Your task to perform on an android device: check storage Image 0: 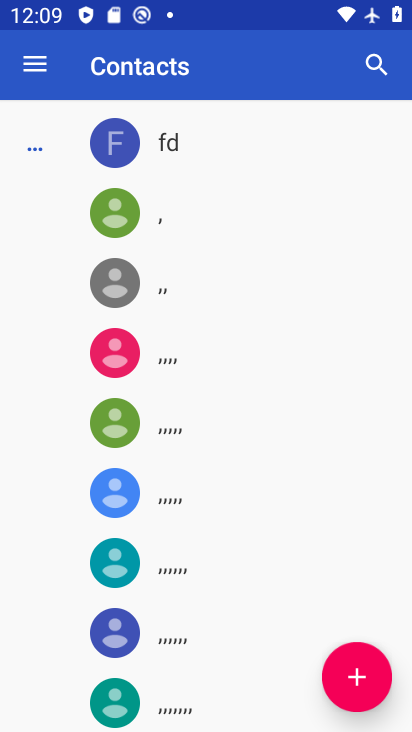
Step 0: press home button
Your task to perform on an android device: check storage Image 1: 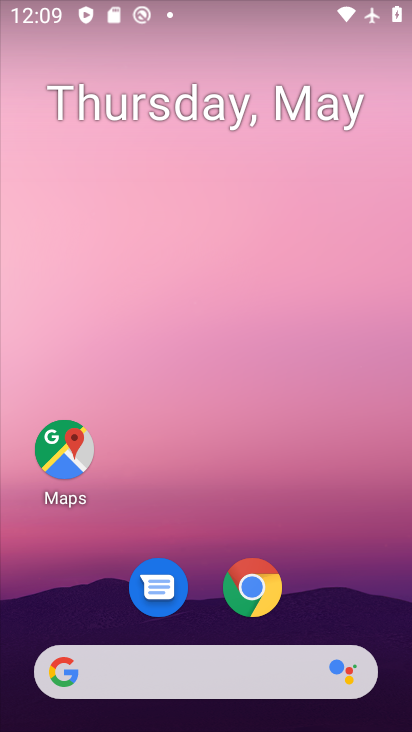
Step 1: drag from (360, 679) to (373, 33)
Your task to perform on an android device: check storage Image 2: 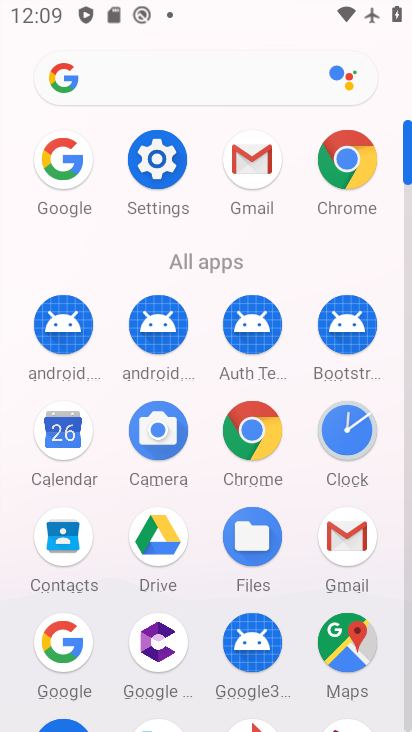
Step 2: click (152, 149)
Your task to perform on an android device: check storage Image 3: 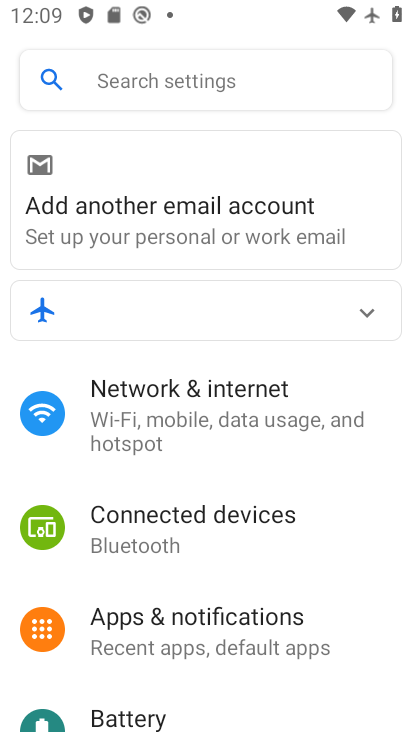
Step 3: drag from (223, 636) to (317, 146)
Your task to perform on an android device: check storage Image 4: 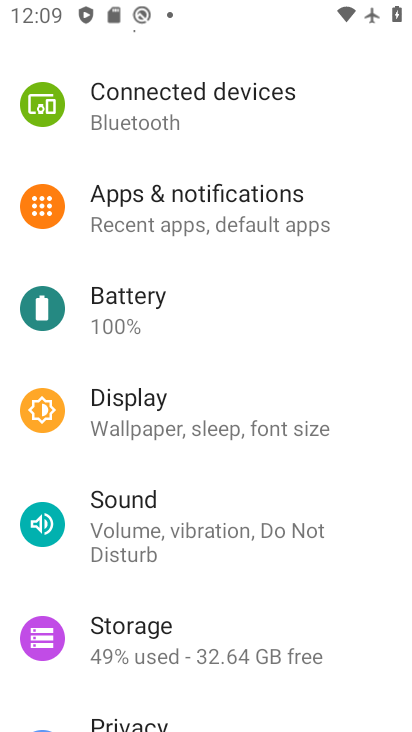
Step 4: drag from (290, 632) to (324, 318)
Your task to perform on an android device: check storage Image 5: 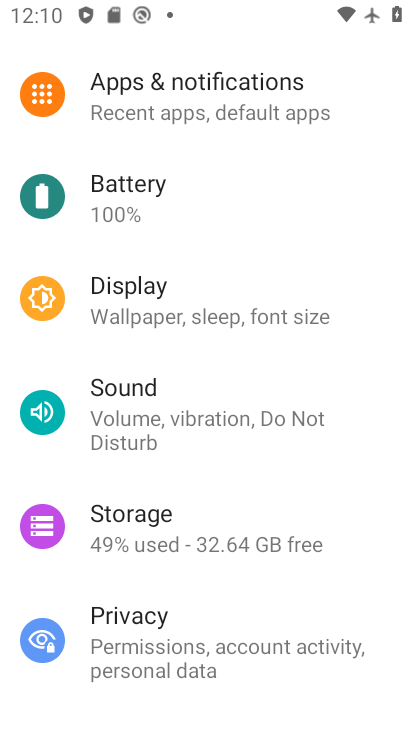
Step 5: click (220, 528)
Your task to perform on an android device: check storage Image 6: 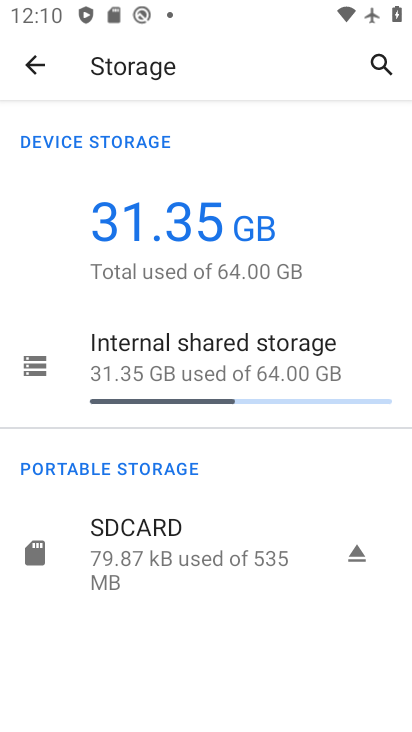
Step 6: task complete